Your task to perform on an android device: turn off javascript in the chrome app Image 0: 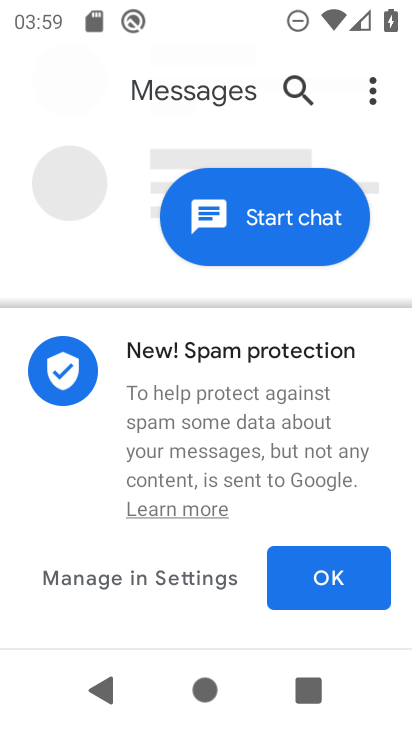
Step 0: press home button
Your task to perform on an android device: turn off javascript in the chrome app Image 1: 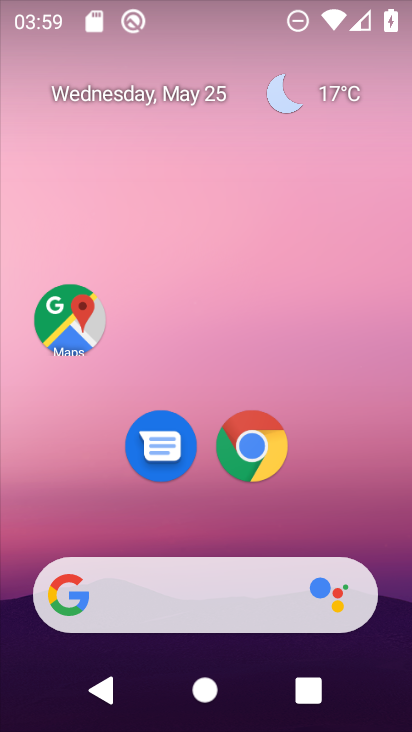
Step 1: click (267, 438)
Your task to perform on an android device: turn off javascript in the chrome app Image 2: 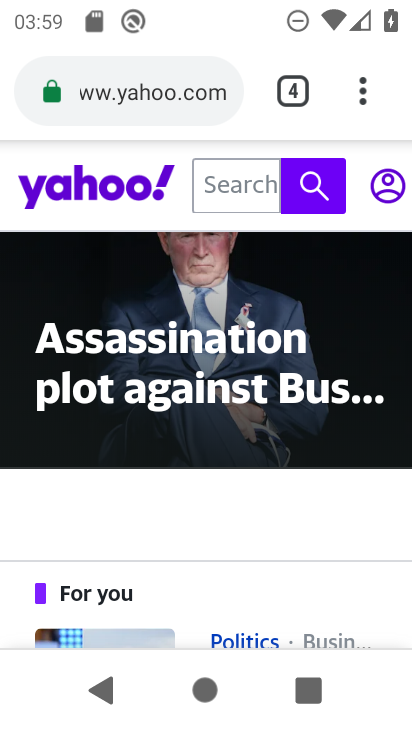
Step 2: drag from (361, 80) to (123, 464)
Your task to perform on an android device: turn off javascript in the chrome app Image 3: 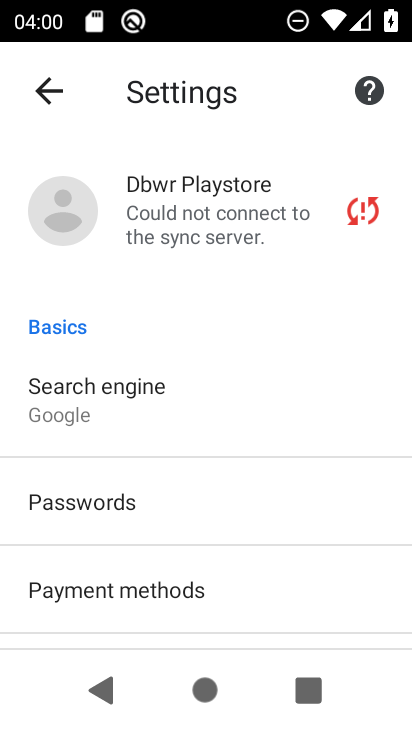
Step 3: drag from (192, 559) to (206, 102)
Your task to perform on an android device: turn off javascript in the chrome app Image 4: 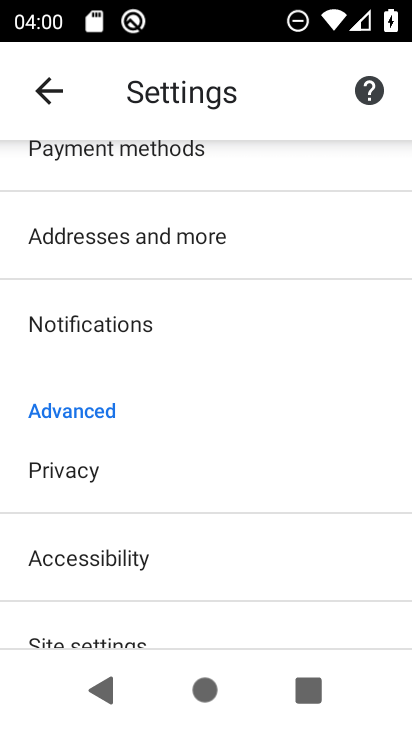
Step 4: drag from (127, 609) to (160, 224)
Your task to perform on an android device: turn off javascript in the chrome app Image 5: 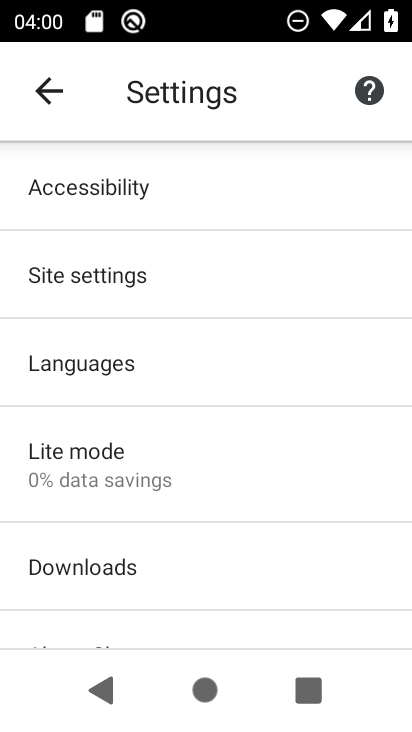
Step 5: click (166, 294)
Your task to perform on an android device: turn off javascript in the chrome app Image 6: 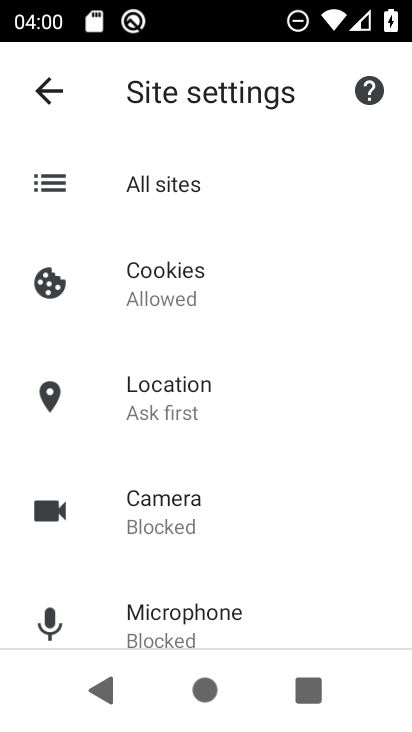
Step 6: drag from (201, 609) to (224, 238)
Your task to perform on an android device: turn off javascript in the chrome app Image 7: 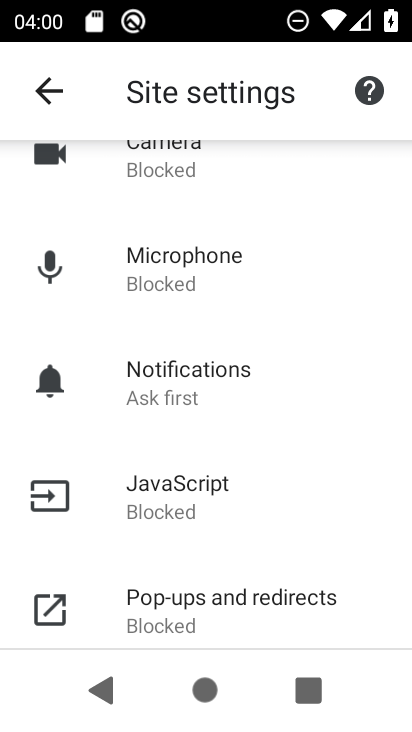
Step 7: click (186, 515)
Your task to perform on an android device: turn off javascript in the chrome app Image 8: 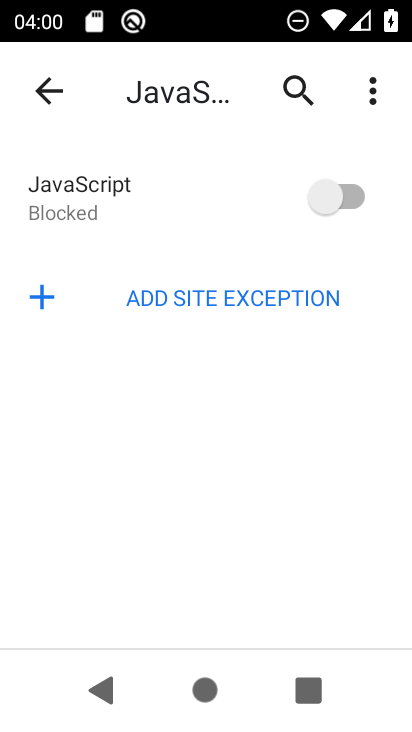
Step 8: task complete